Your task to perform on an android device: uninstall "VLC for Android" Image 0: 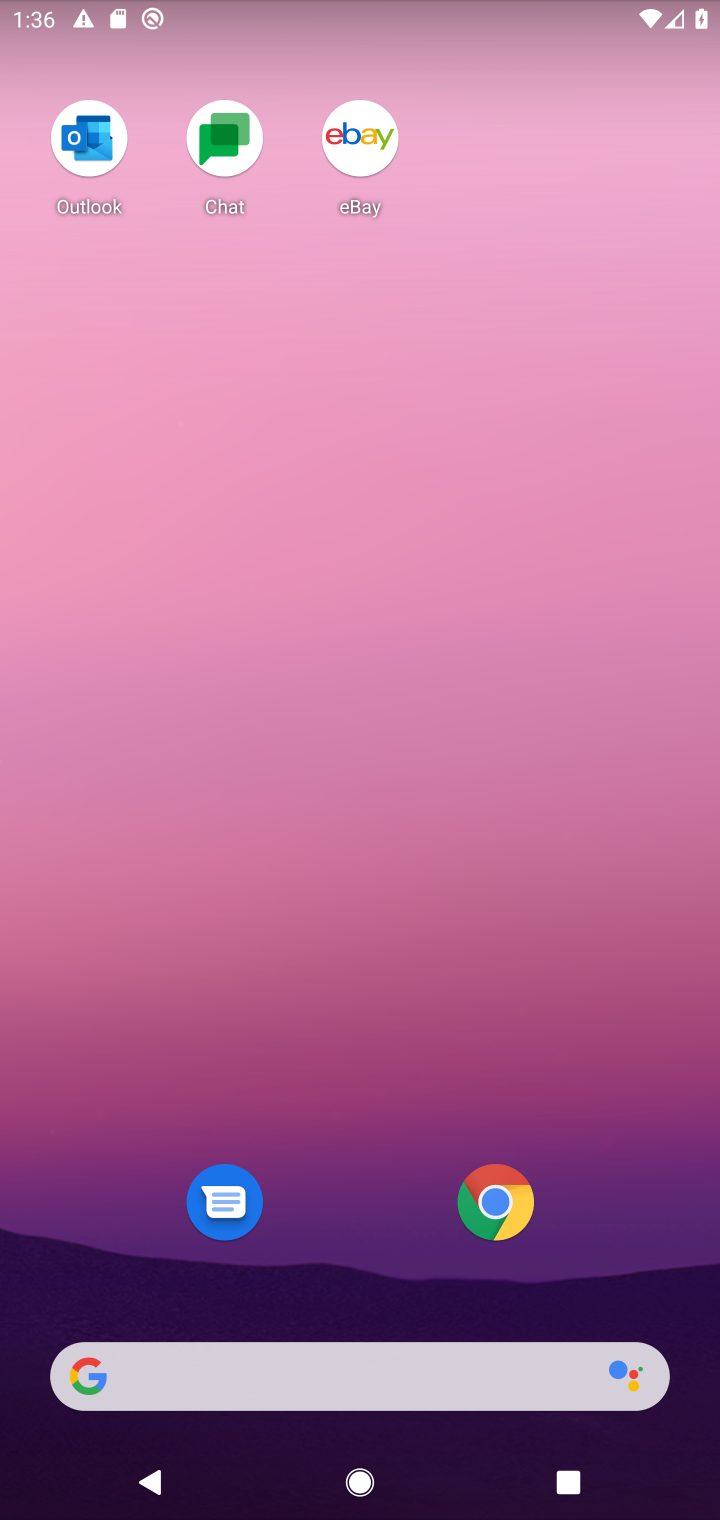
Step 0: task impossible